Your task to perform on an android device: open the mobile data screen to see how much data has been used Image 0: 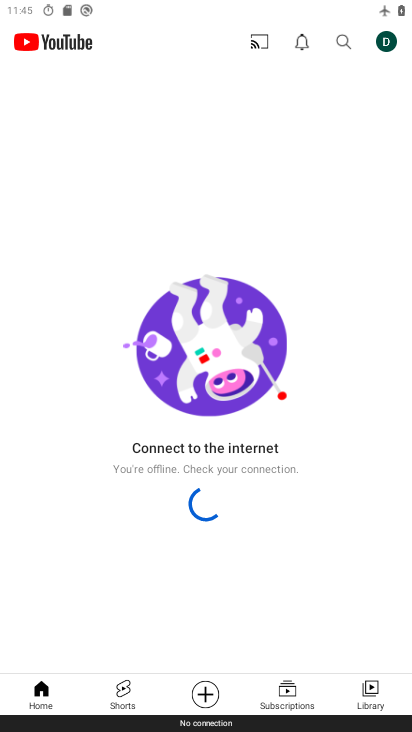
Step 0: press home button
Your task to perform on an android device: open the mobile data screen to see how much data has been used Image 1: 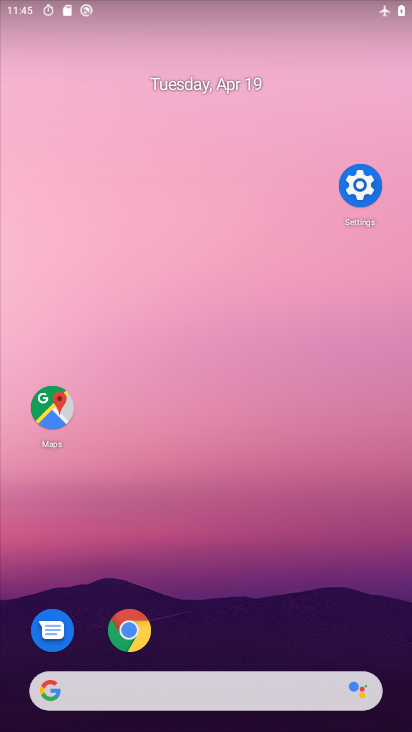
Step 1: drag from (301, 635) to (348, 175)
Your task to perform on an android device: open the mobile data screen to see how much data has been used Image 2: 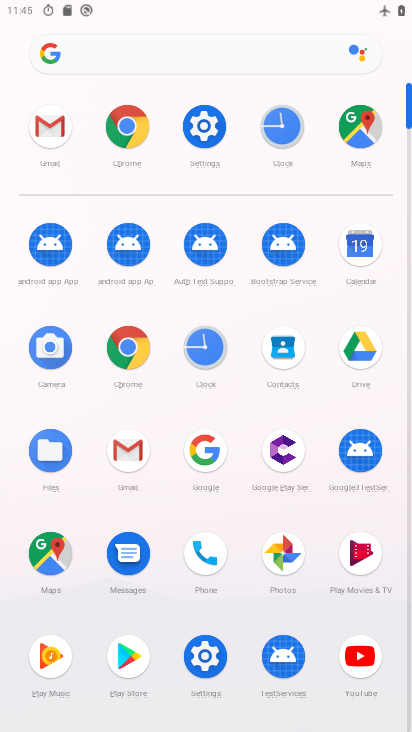
Step 2: click (188, 138)
Your task to perform on an android device: open the mobile data screen to see how much data has been used Image 3: 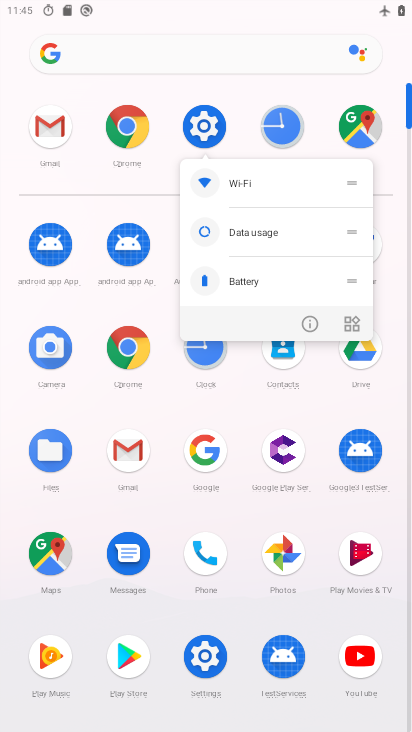
Step 3: click (207, 122)
Your task to perform on an android device: open the mobile data screen to see how much data has been used Image 4: 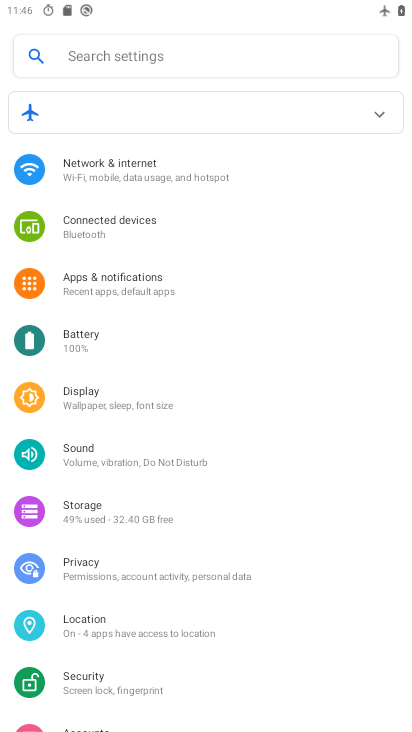
Step 4: drag from (184, 530) to (184, 456)
Your task to perform on an android device: open the mobile data screen to see how much data has been used Image 5: 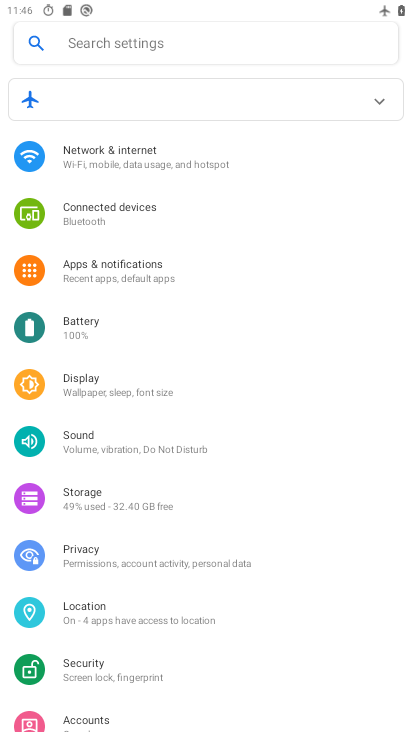
Step 5: click (190, 162)
Your task to perform on an android device: open the mobile data screen to see how much data has been used Image 6: 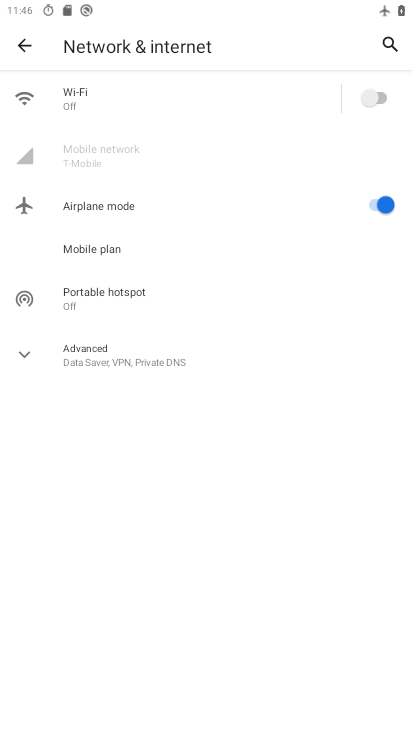
Step 6: task complete